Your task to perform on an android device: Go to internet settings Image 0: 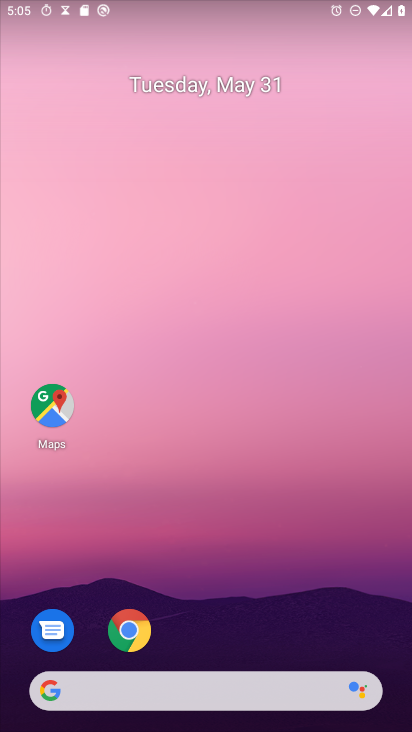
Step 0: drag from (185, 675) to (241, 3)
Your task to perform on an android device: Go to internet settings Image 1: 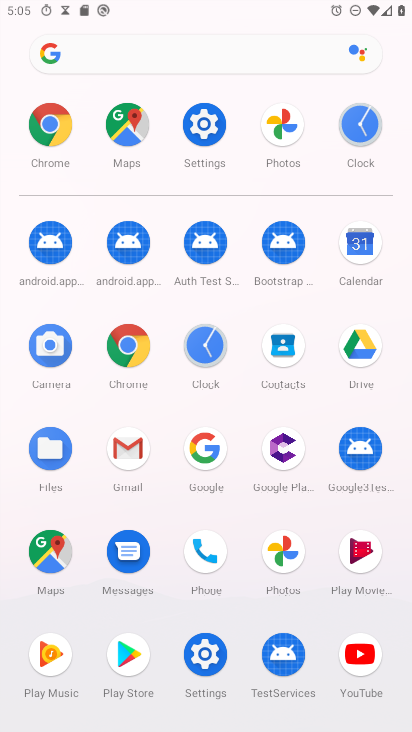
Step 1: click (204, 130)
Your task to perform on an android device: Go to internet settings Image 2: 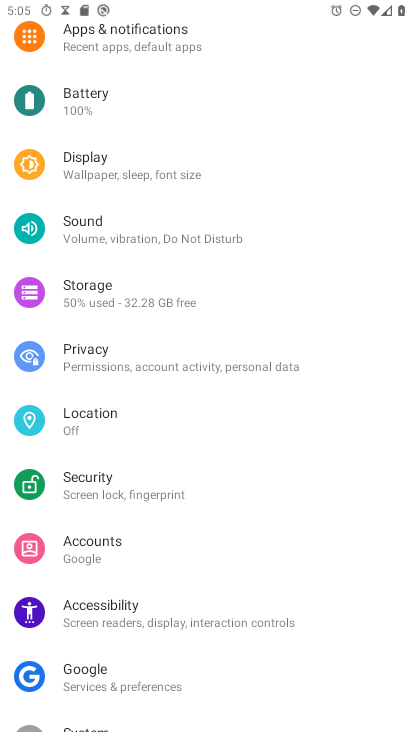
Step 2: drag from (187, 179) to (254, 681)
Your task to perform on an android device: Go to internet settings Image 3: 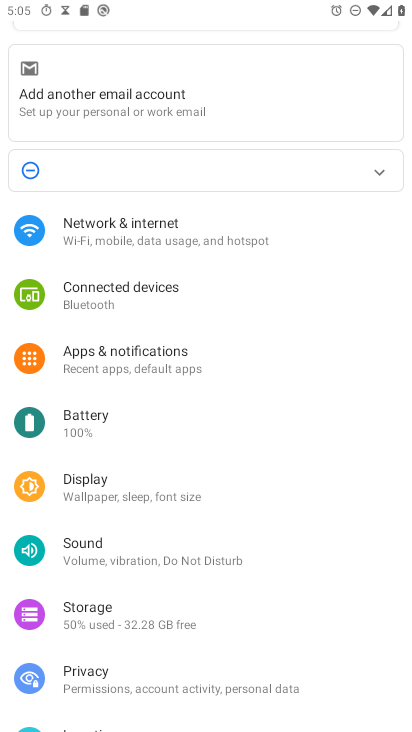
Step 3: click (218, 289)
Your task to perform on an android device: Go to internet settings Image 4: 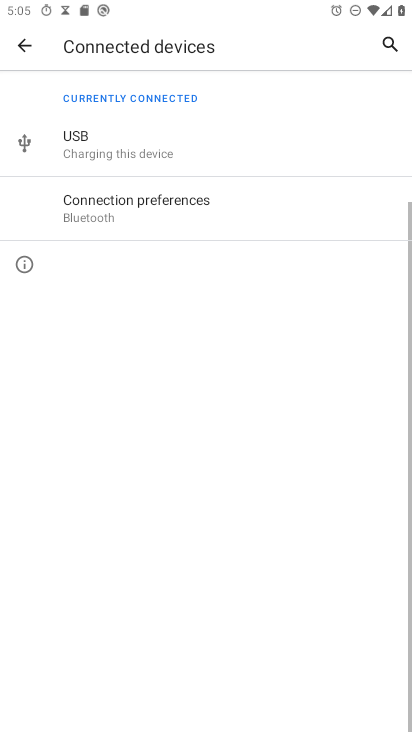
Step 4: press back button
Your task to perform on an android device: Go to internet settings Image 5: 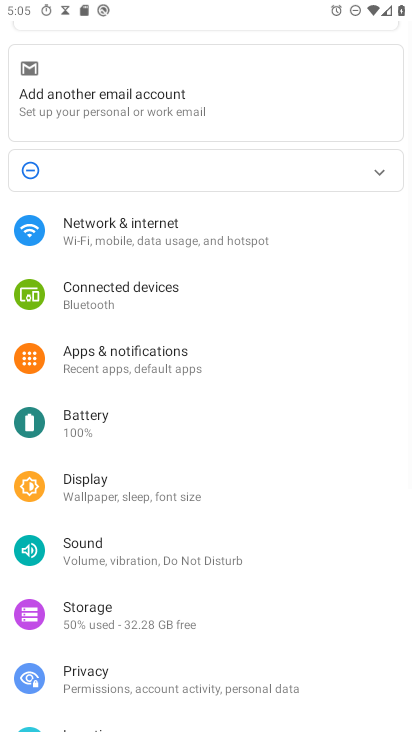
Step 5: click (213, 217)
Your task to perform on an android device: Go to internet settings Image 6: 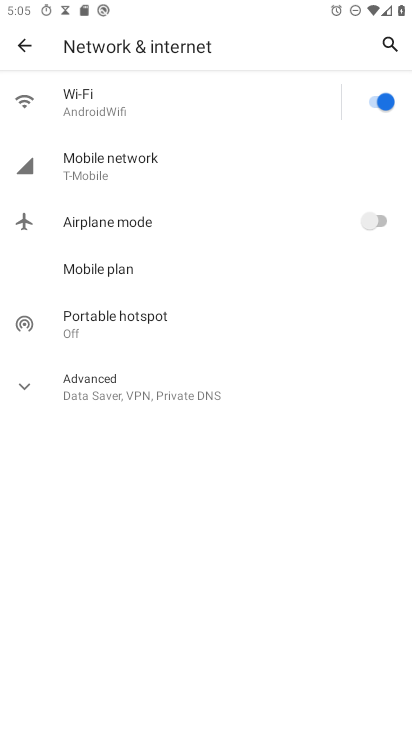
Step 6: task complete